Your task to perform on an android device: Play the last video I watched on Youtube Image 0: 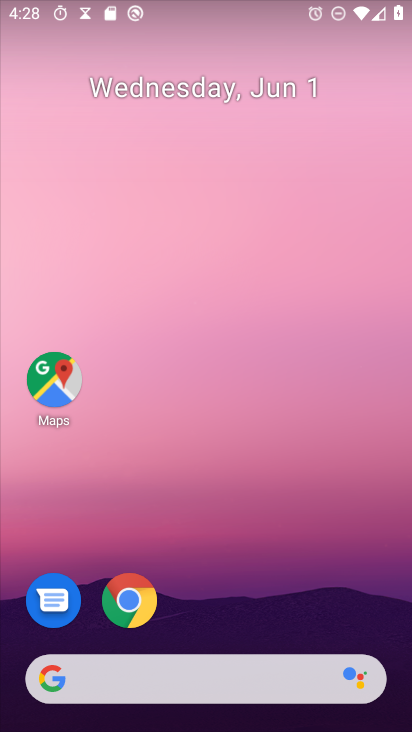
Step 0: press home button
Your task to perform on an android device: Play the last video I watched on Youtube Image 1: 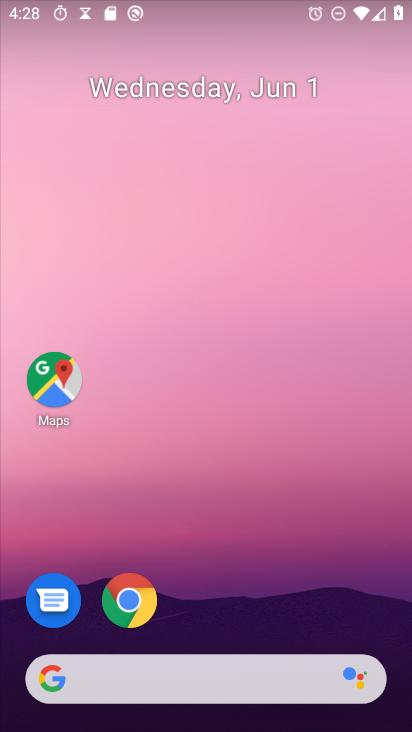
Step 1: drag from (204, 624) to (212, 145)
Your task to perform on an android device: Play the last video I watched on Youtube Image 2: 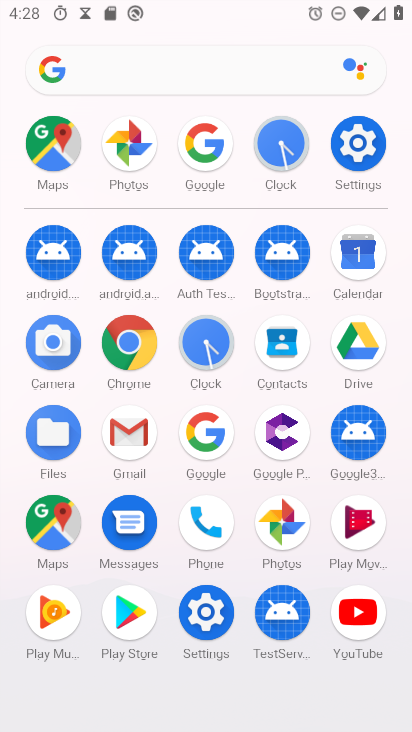
Step 2: click (357, 623)
Your task to perform on an android device: Play the last video I watched on Youtube Image 3: 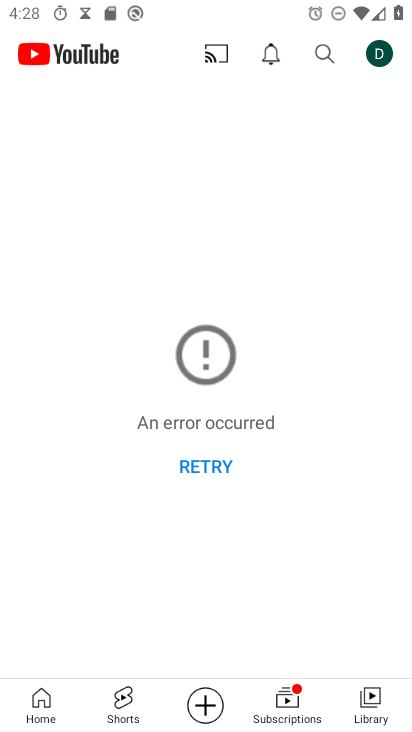
Step 3: click (378, 706)
Your task to perform on an android device: Play the last video I watched on Youtube Image 4: 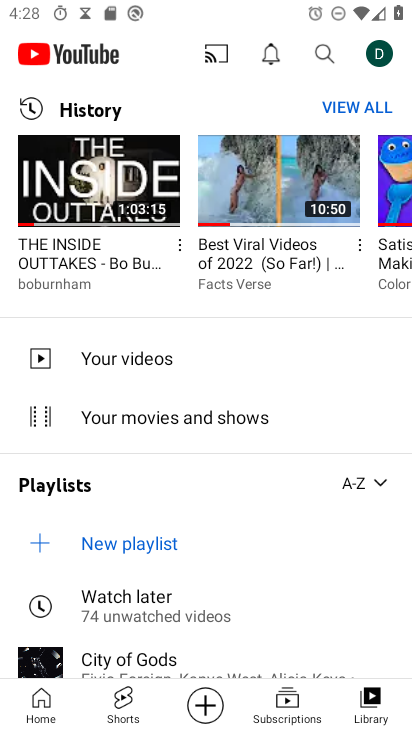
Step 4: task complete